Your task to perform on an android device: open wifi settings Image 0: 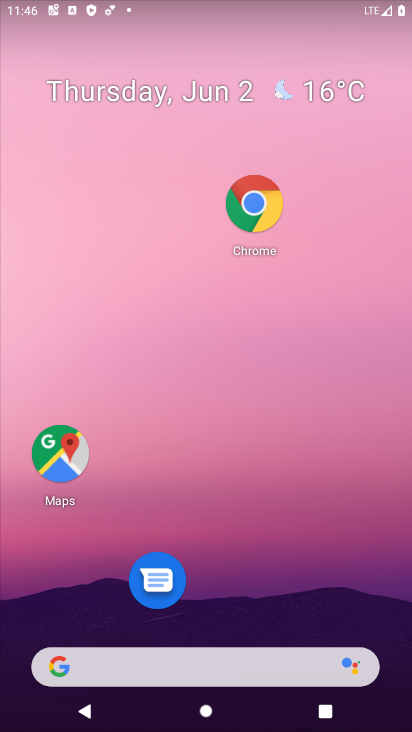
Step 0: drag from (317, 455) to (339, 209)
Your task to perform on an android device: open wifi settings Image 1: 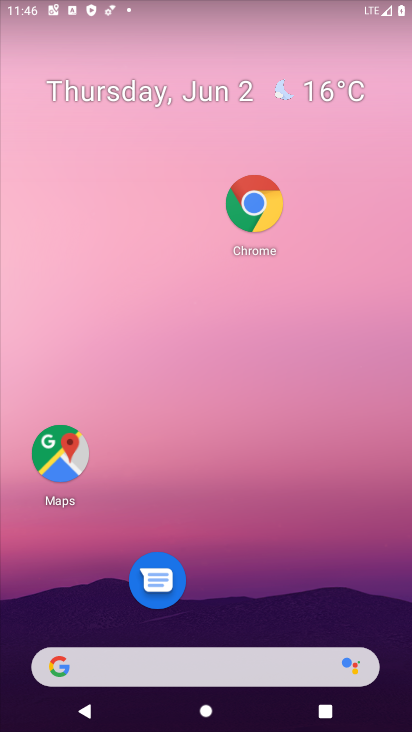
Step 1: drag from (230, 609) to (352, 22)
Your task to perform on an android device: open wifi settings Image 2: 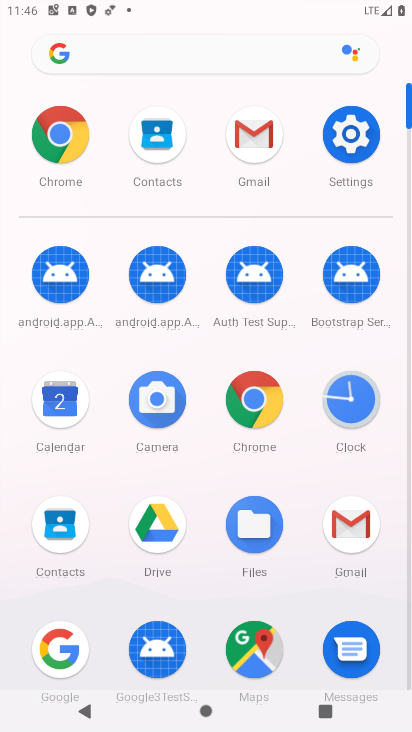
Step 2: click (365, 136)
Your task to perform on an android device: open wifi settings Image 3: 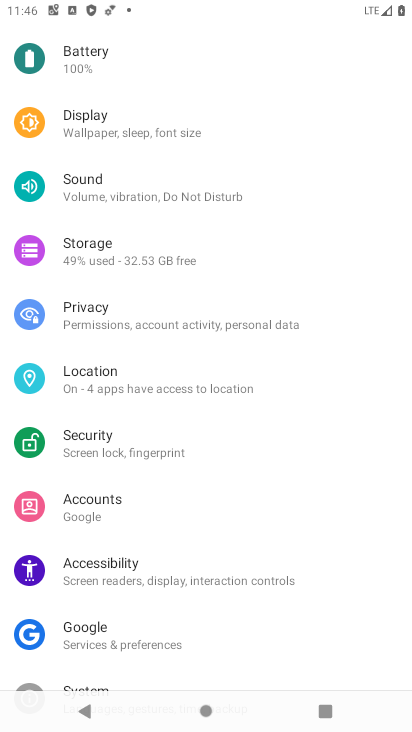
Step 3: drag from (151, 233) to (101, 677)
Your task to perform on an android device: open wifi settings Image 4: 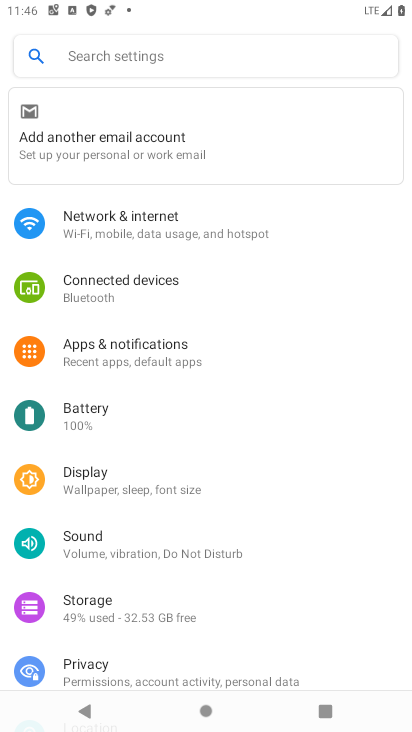
Step 4: drag from (193, 305) to (152, 560)
Your task to perform on an android device: open wifi settings Image 5: 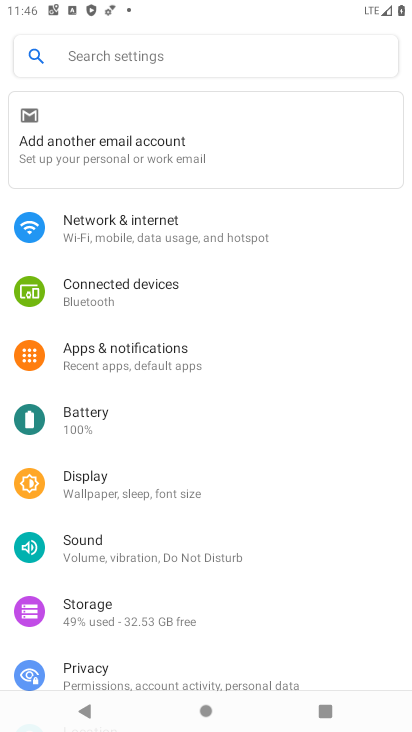
Step 5: click (253, 241)
Your task to perform on an android device: open wifi settings Image 6: 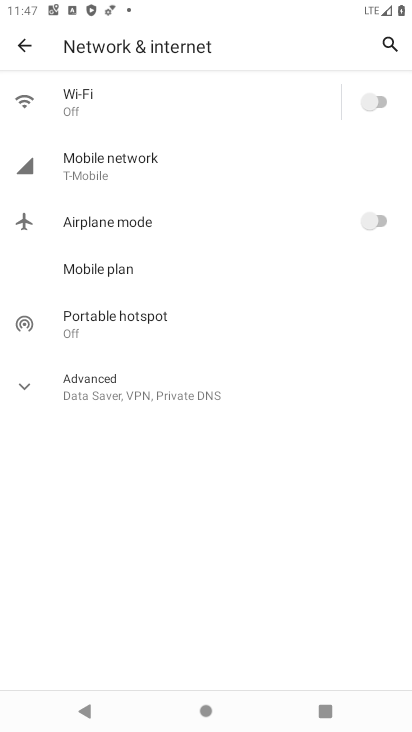
Step 6: click (188, 109)
Your task to perform on an android device: open wifi settings Image 7: 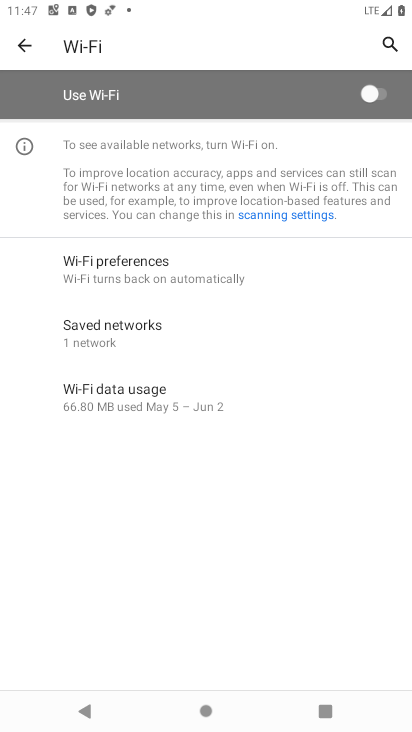
Step 7: task complete